Your task to perform on an android device: toggle notifications settings in the gmail app Image 0: 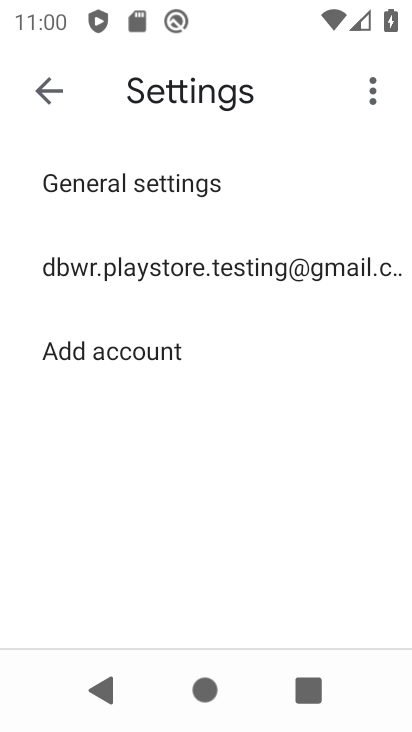
Step 0: click (184, 265)
Your task to perform on an android device: toggle notifications settings in the gmail app Image 1: 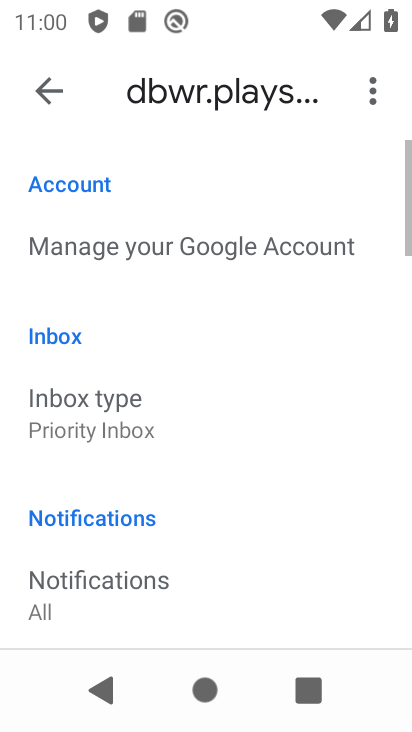
Step 1: drag from (233, 596) to (304, 225)
Your task to perform on an android device: toggle notifications settings in the gmail app Image 2: 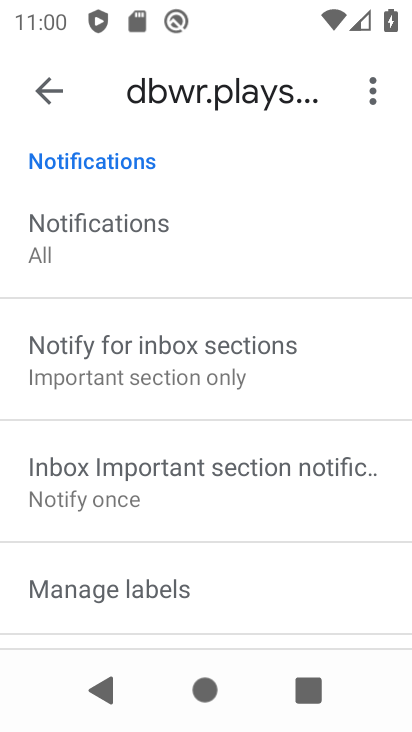
Step 2: drag from (203, 531) to (255, 295)
Your task to perform on an android device: toggle notifications settings in the gmail app Image 3: 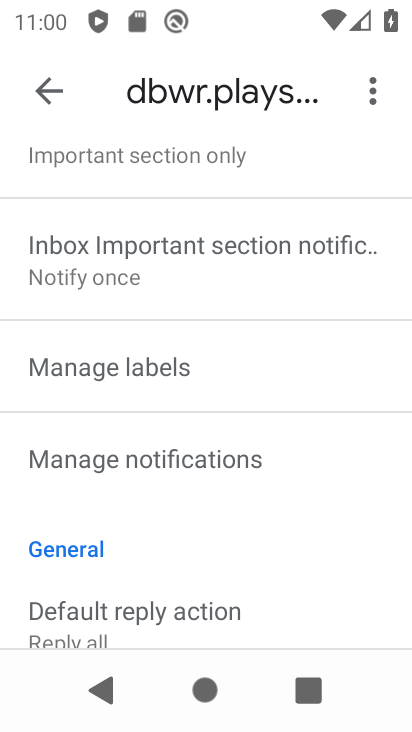
Step 3: click (186, 447)
Your task to perform on an android device: toggle notifications settings in the gmail app Image 4: 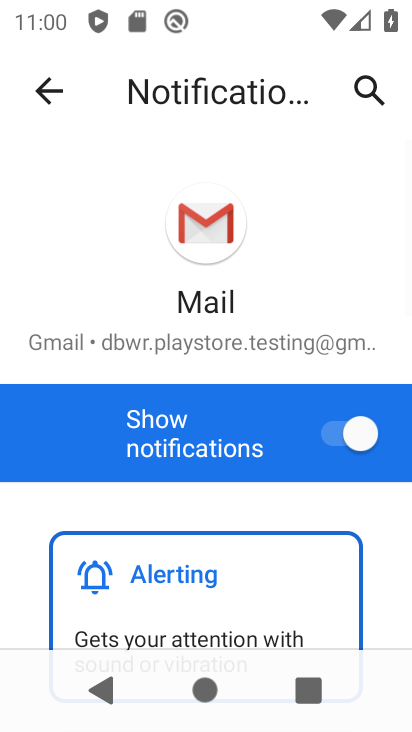
Step 4: click (312, 419)
Your task to perform on an android device: toggle notifications settings in the gmail app Image 5: 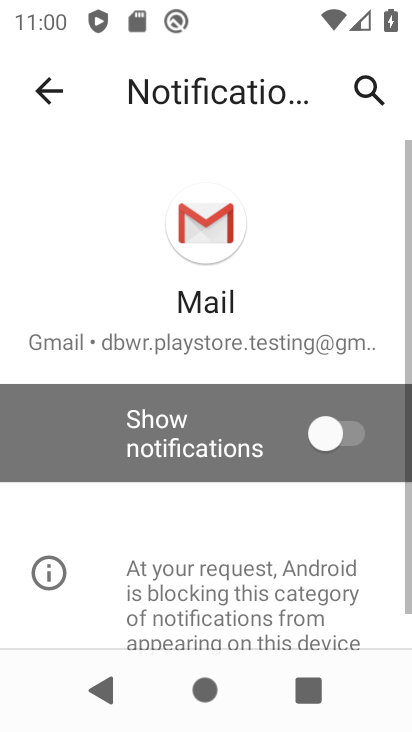
Step 5: task complete